Your task to perform on an android device: Search for sushi restaurants on Maps Image 0: 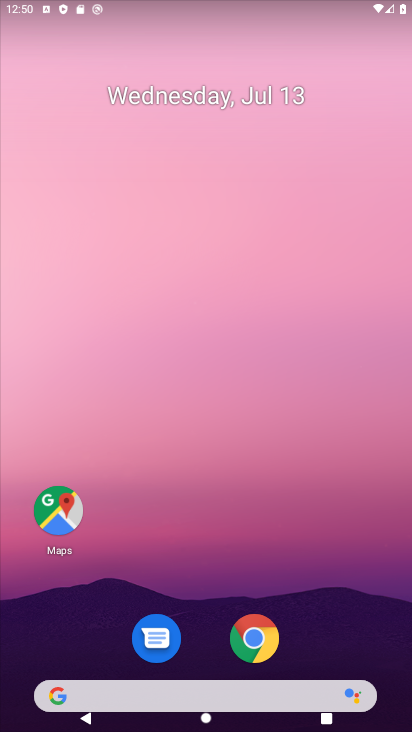
Step 0: type "Is it going to rain this weekend?"
Your task to perform on an android device: Search for sushi restaurants on Maps Image 1: 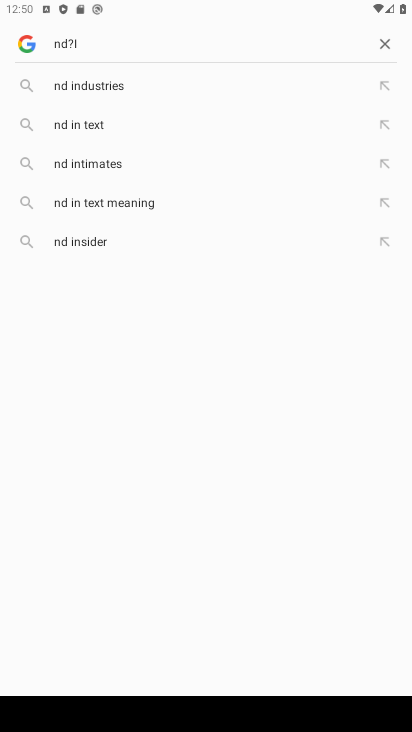
Step 1: click (147, 49)
Your task to perform on an android device: Search for sushi restaurants on Maps Image 2: 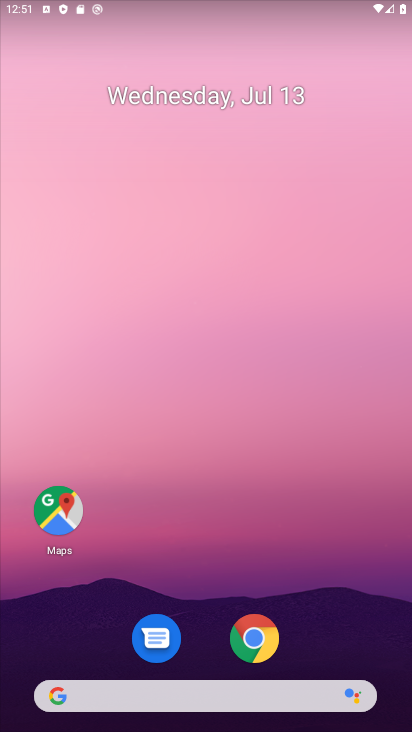
Step 2: click (49, 515)
Your task to perform on an android device: Search for sushi restaurants on Maps Image 3: 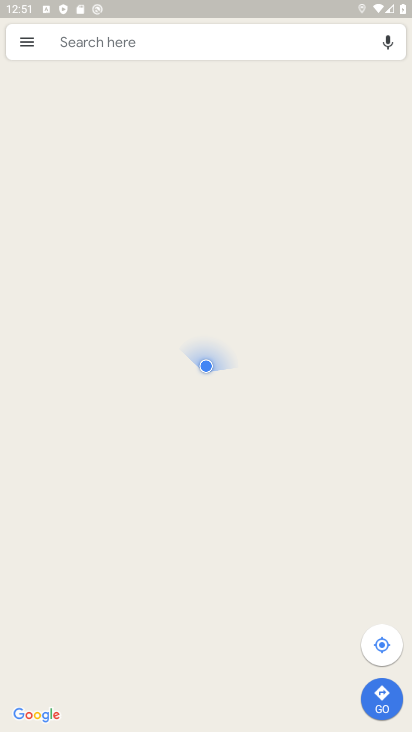
Step 3: click (190, 44)
Your task to perform on an android device: Search for sushi restaurants on Maps Image 4: 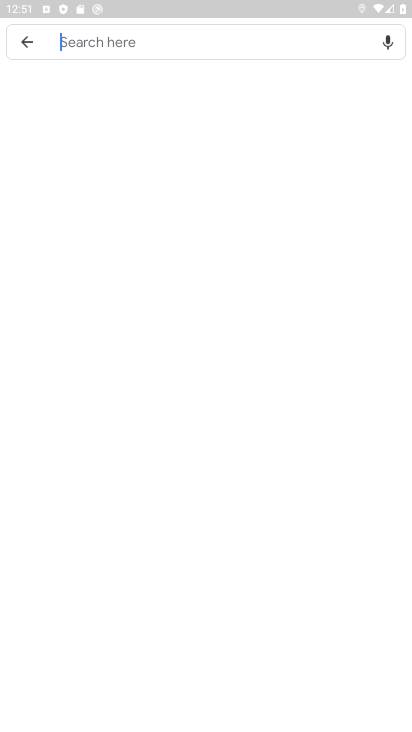
Step 4: click (181, 45)
Your task to perform on an android device: Search for sushi restaurants on Maps Image 5: 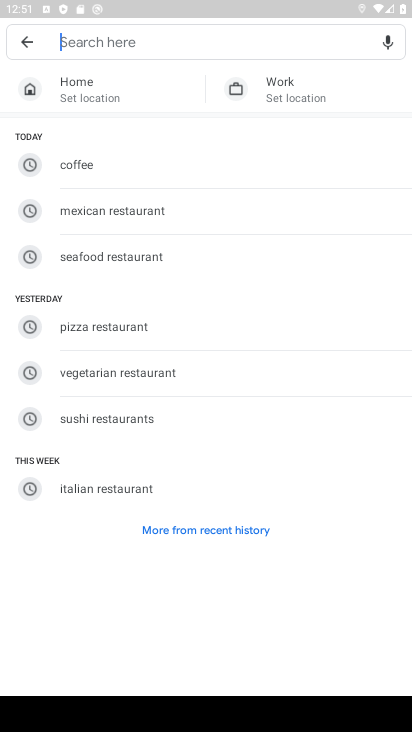
Step 5: click (169, 420)
Your task to perform on an android device: Search for sushi restaurants on Maps Image 6: 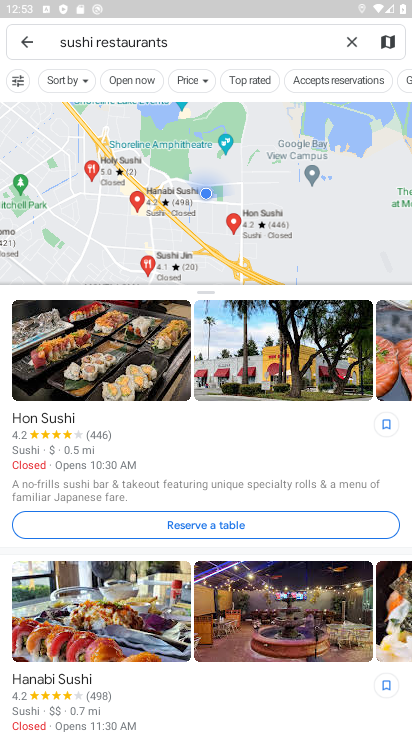
Step 6: task complete